Your task to perform on an android device: check google app version Image 0: 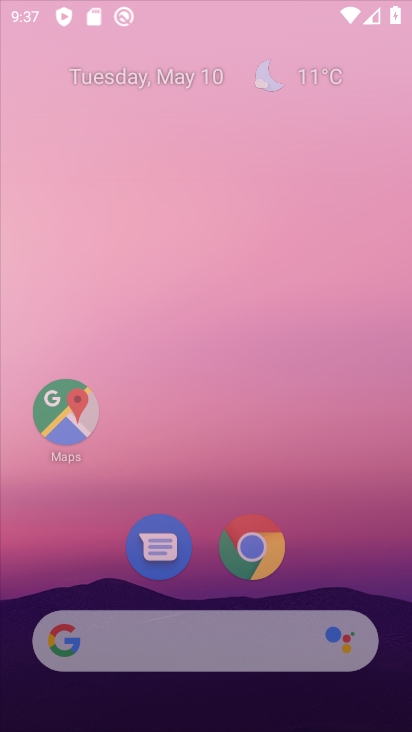
Step 0: press home button
Your task to perform on an android device: check google app version Image 1: 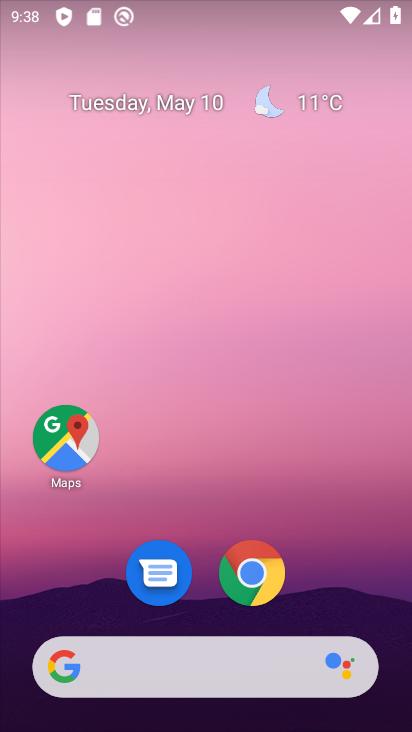
Step 1: drag from (308, 610) to (349, 92)
Your task to perform on an android device: check google app version Image 2: 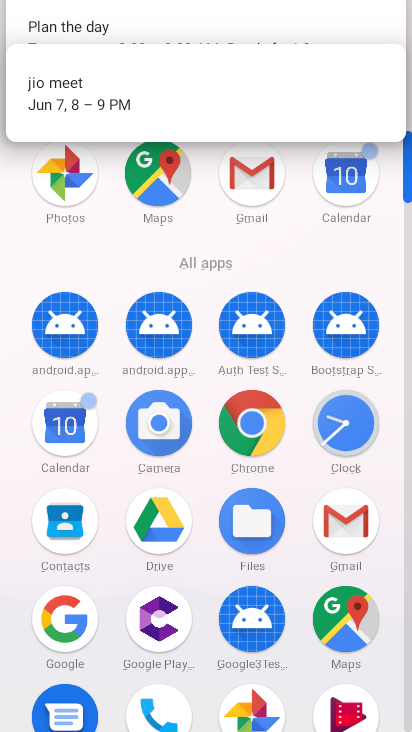
Step 2: click (79, 628)
Your task to perform on an android device: check google app version Image 3: 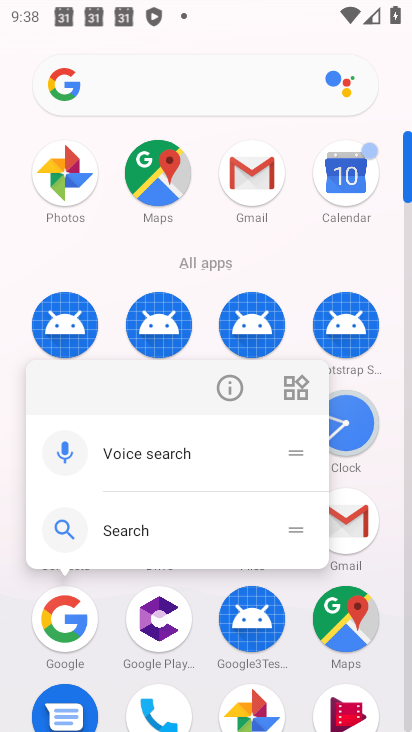
Step 3: click (222, 385)
Your task to perform on an android device: check google app version Image 4: 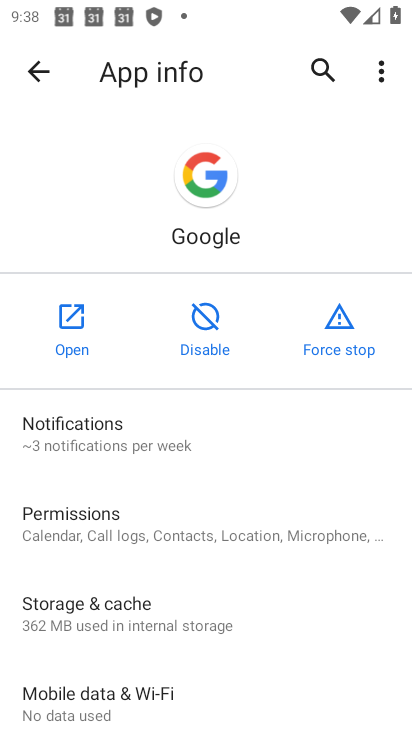
Step 4: drag from (275, 647) to (345, 189)
Your task to perform on an android device: check google app version Image 5: 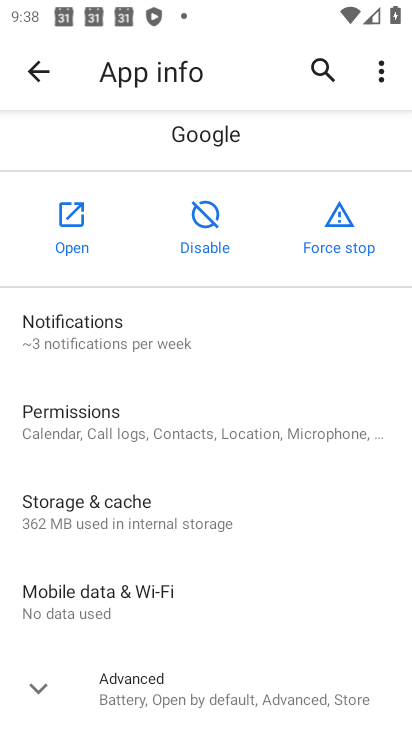
Step 5: drag from (233, 692) to (294, 370)
Your task to perform on an android device: check google app version Image 6: 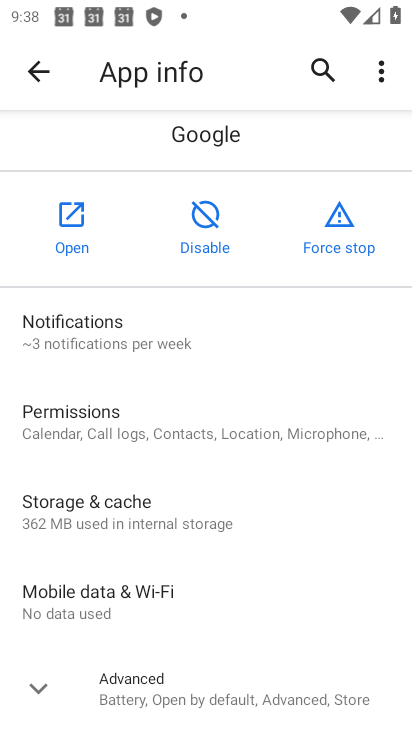
Step 6: click (202, 692)
Your task to perform on an android device: check google app version Image 7: 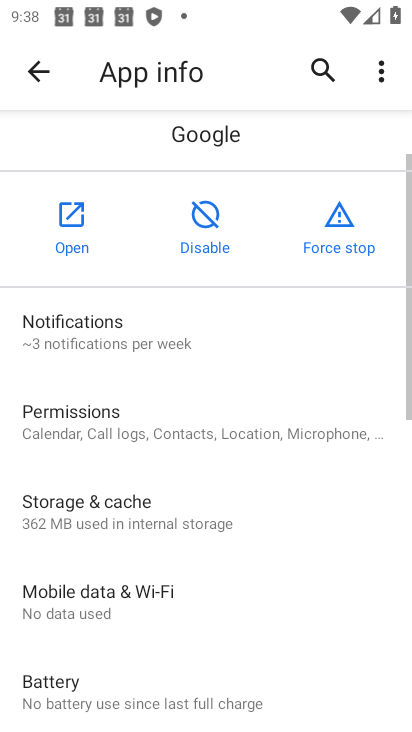
Step 7: drag from (202, 692) to (146, 216)
Your task to perform on an android device: check google app version Image 8: 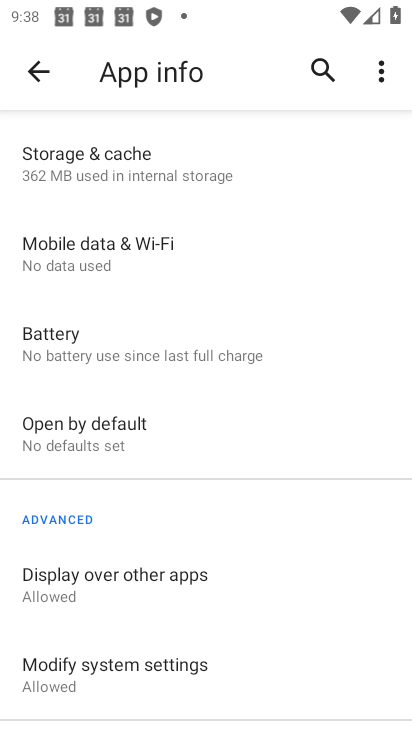
Step 8: drag from (307, 649) to (284, 374)
Your task to perform on an android device: check google app version Image 9: 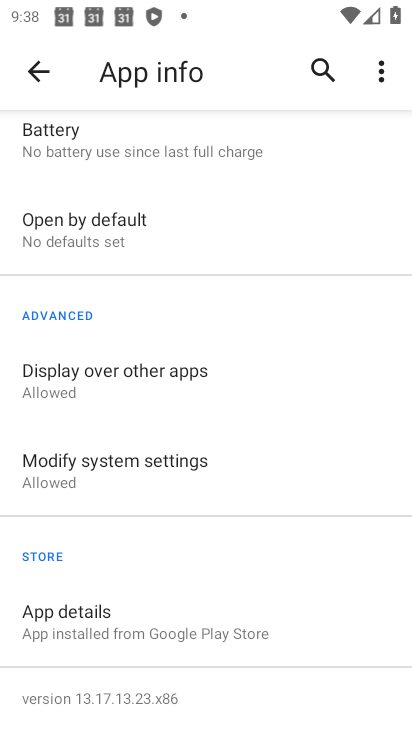
Step 9: drag from (256, 716) to (254, 267)
Your task to perform on an android device: check google app version Image 10: 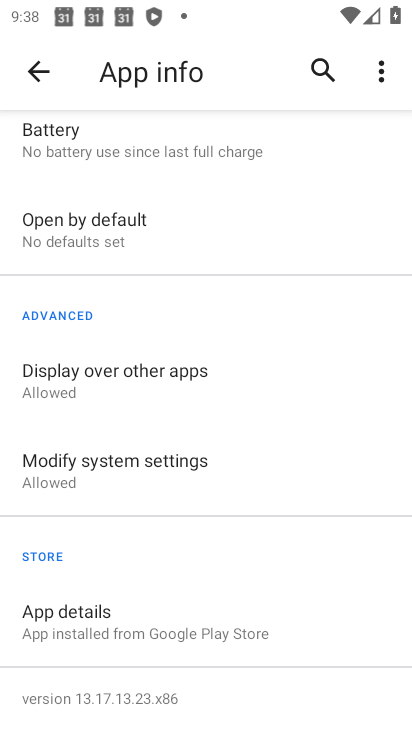
Step 10: click (109, 700)
Your task to perform on an android device: check google app version Image 11: 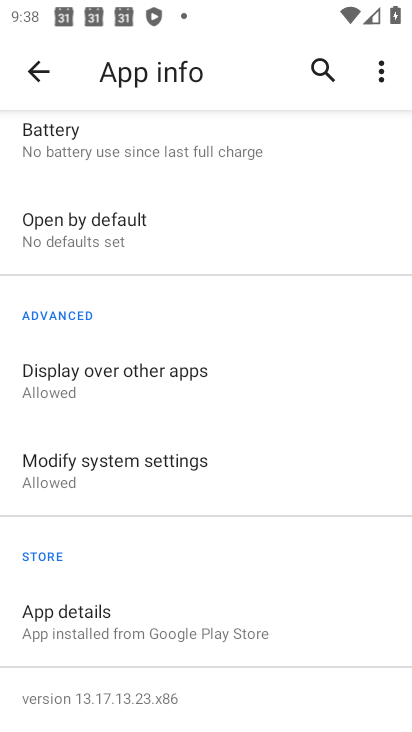
Step 11: task complete